Your task to perform on an android device: change the clock display to show seconds Image 0: 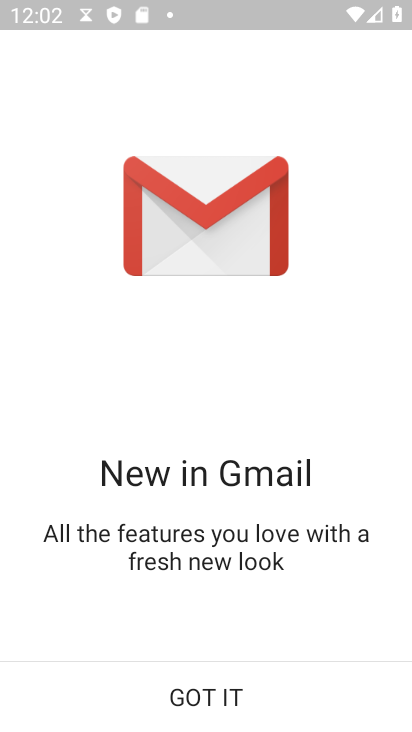
Step 0: press home button
Your task to perform on an android device: change the clock display to show seconds Image 1: 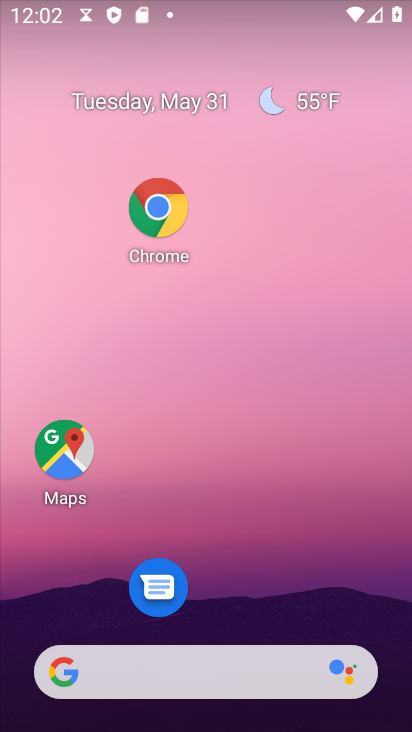
Step 1: drag from (258, 590) to (203, 152)
Your task to perform on an android device: change the clock display to show seconds Image 2: 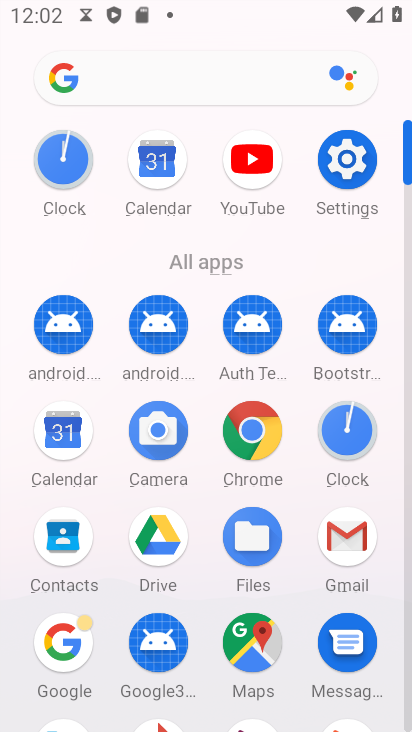
Step 2: click (350, 422)
Your task to perform on an android device: change the clock display to show seconds Image 3: 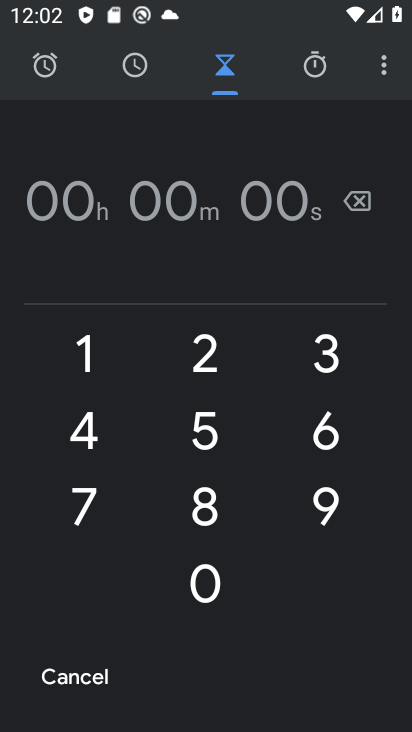
Step 3: click (385, 58)
Your task to perform on an android device: change the clock display to show seconds Image 4: 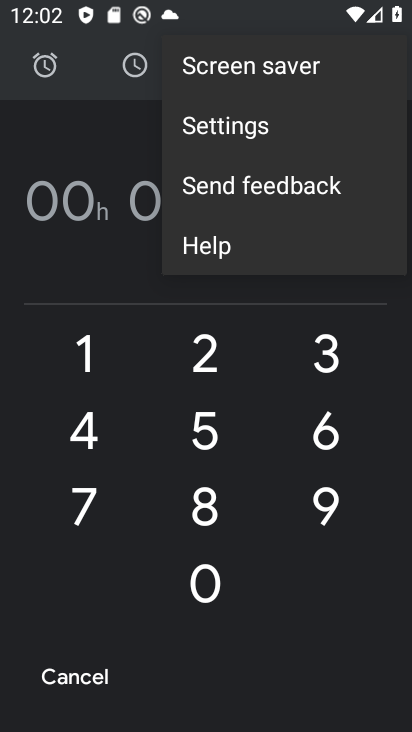
Step 4: click (262, 134)
Your task to perform on an android device: change the clock display to show seconds Image 5: 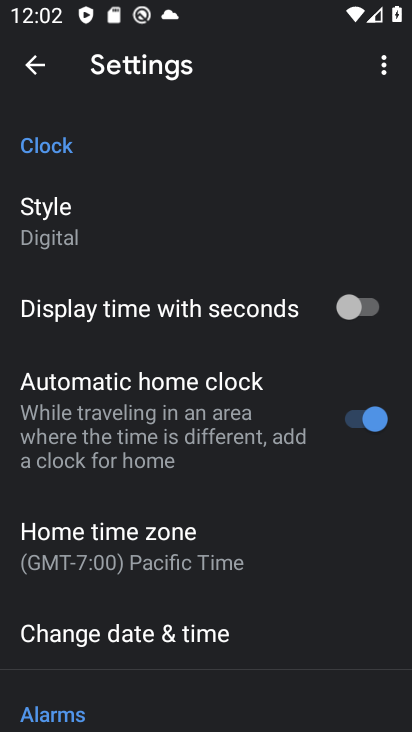
Step 5: click (347, 308)
Your task to perform on an android device: change the clock display to show seconds Image 6: 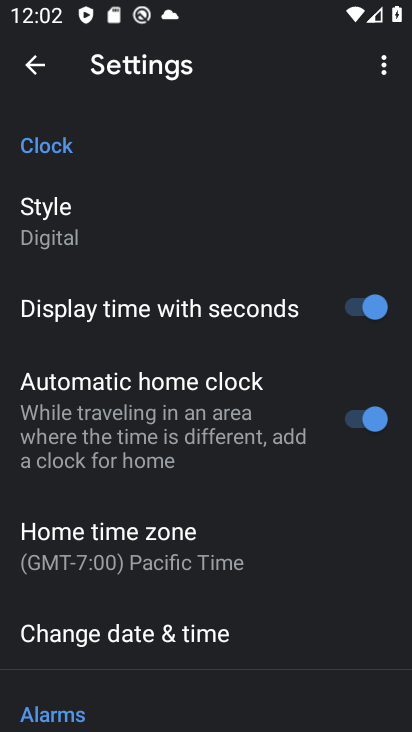
Step 6: task complete